Your task to perform on an android device: Open Google Image 0: 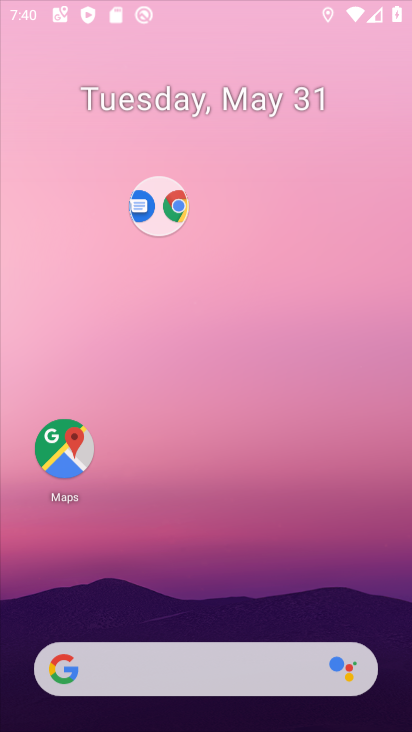
Step 0: click (189, 63)
Your task to perform on an android device: Open Google Image 1: 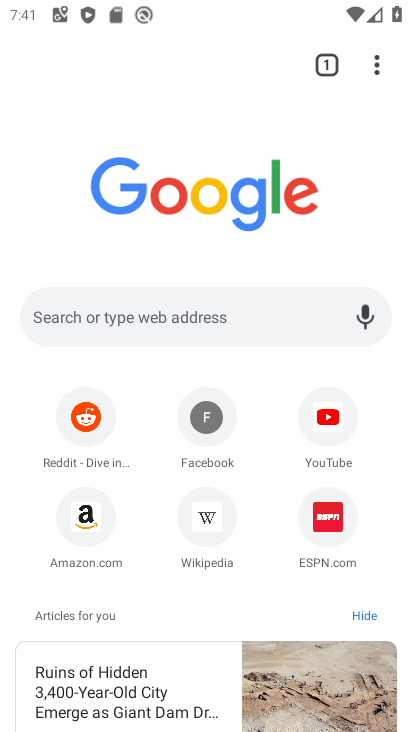
Step 1: press home button
Your task to perform on an android device: Open Google Image 2: 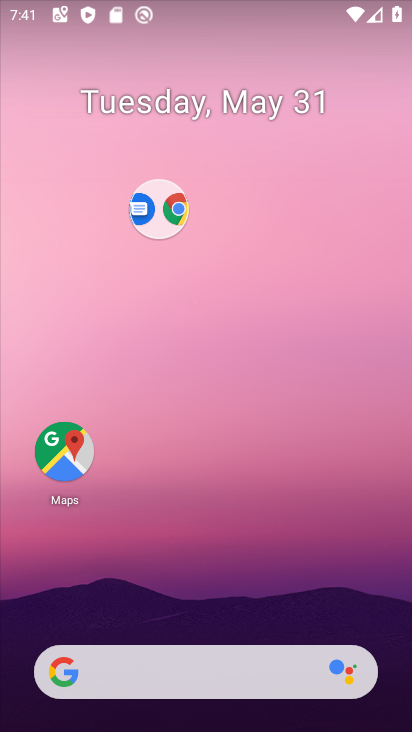
Step 2: click (152, 672)
Your task to perform on an android device: Open Google Image 3: 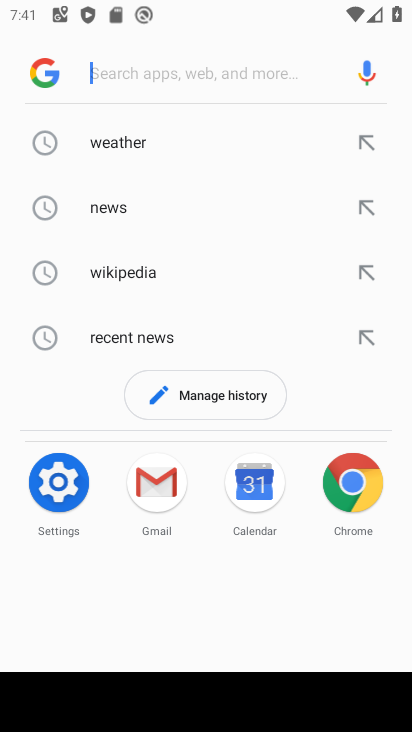
Step 3: task complete